Your task to perform on an android device: Go to internet settings Image 0: 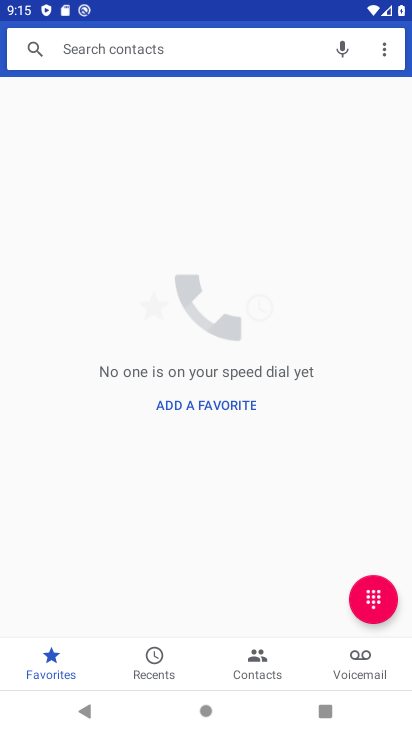
Step 0: press back button
Your task to perform on an android device: Go to internet settings Image 1: 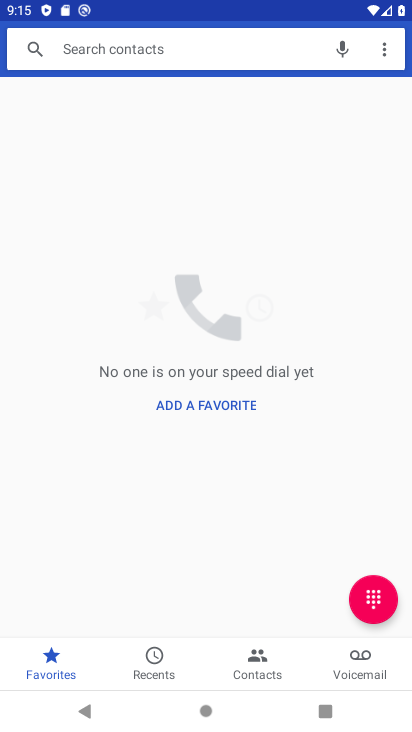
Step 1: press back button
Your task to perform on an android device: Go to internet settings Image 2: 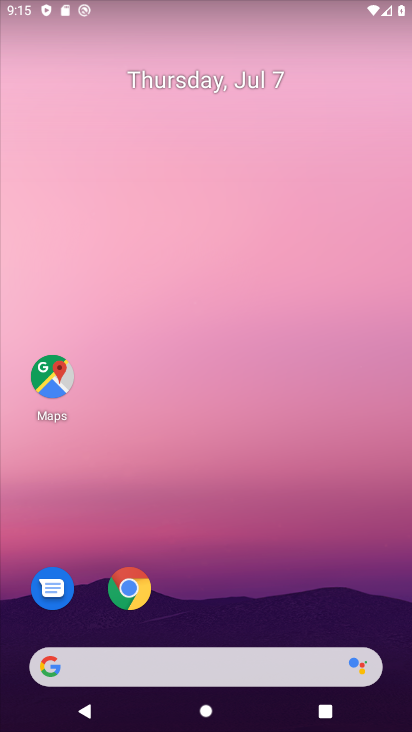
Step 2: click (100, 134)
Your task to perform on an android device: Go to internet settings Image 3: 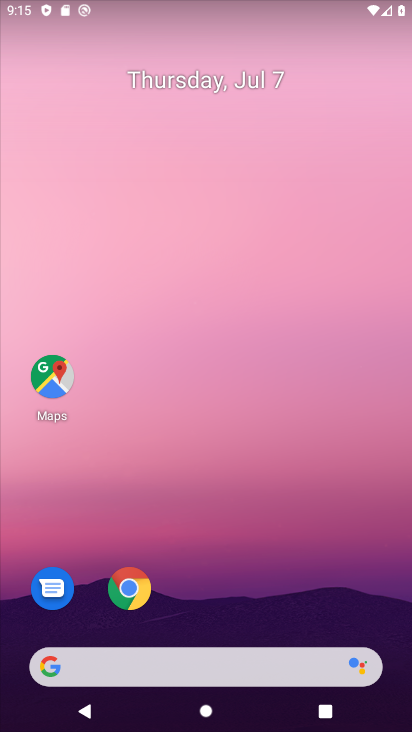
Step 3: drag from (262, 587) to (259, 8)
Your task to perform on an android device: Go to internet settings Image 4: 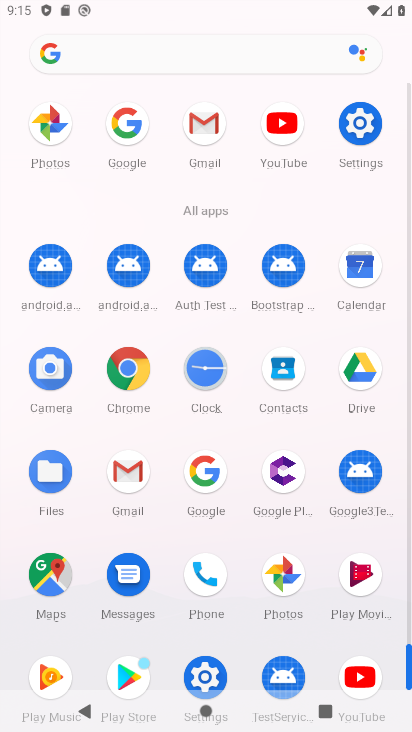
Step 4: click (348, 124)
Your task to perform on an android device: Go to internet settings Image 5: 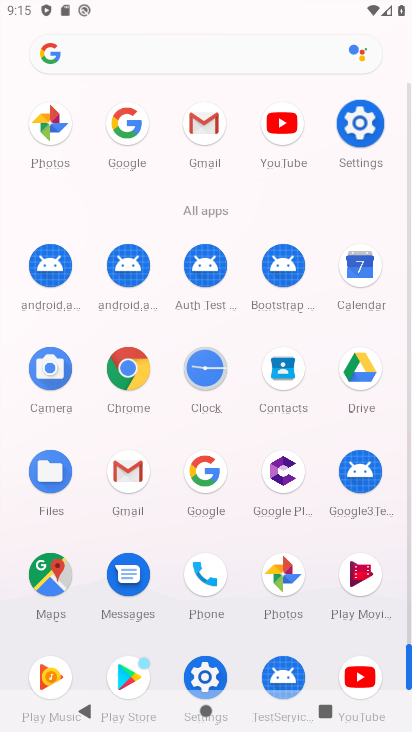
Step 5: click (349, 125)
Your task to perform on an android device: Go to internet settings Image 6: 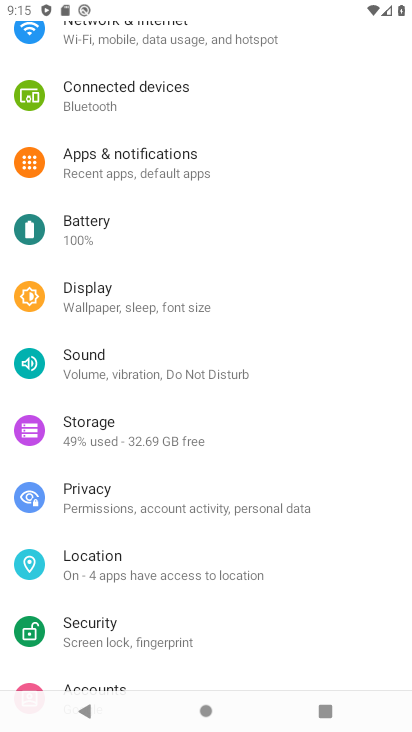
Step 6: drag from (102, 533) to (70, 156)
Your task to perform on an android device: Go to internet settings Image 7: 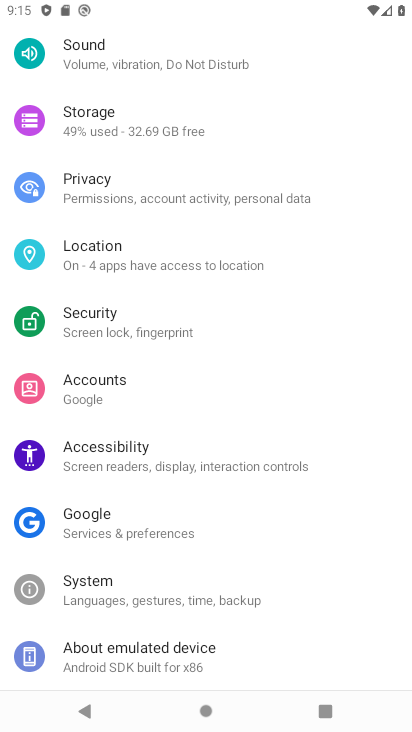
Step 7: drag from (101, 514) to (101, 287)
Your task to perform on an android device: Go to internet settings Image 8: 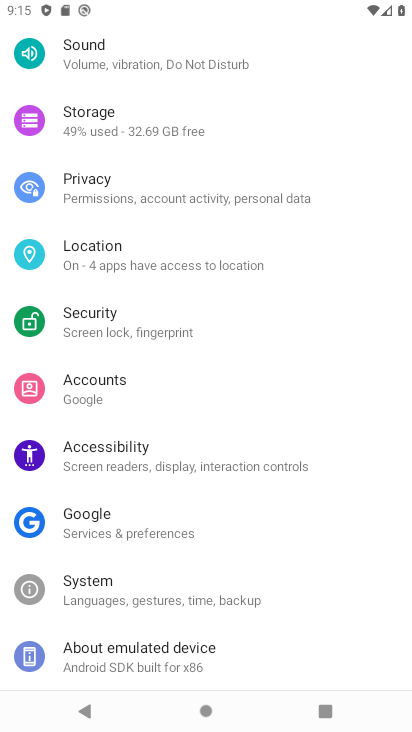
Step 8: drag from (103, 57) to (103, 460)
Your task to perform on an android device: Go to internet settings Image 9: 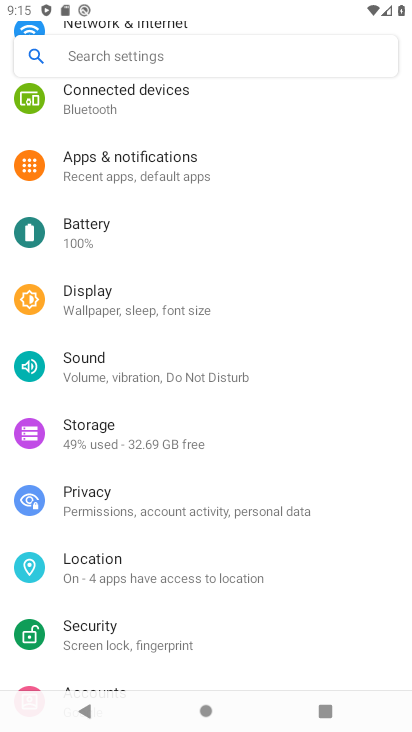
Step 9: drag from (48, 229) to (55, 603)
Your task to perform on an android device: Go to internet settings Image 10: 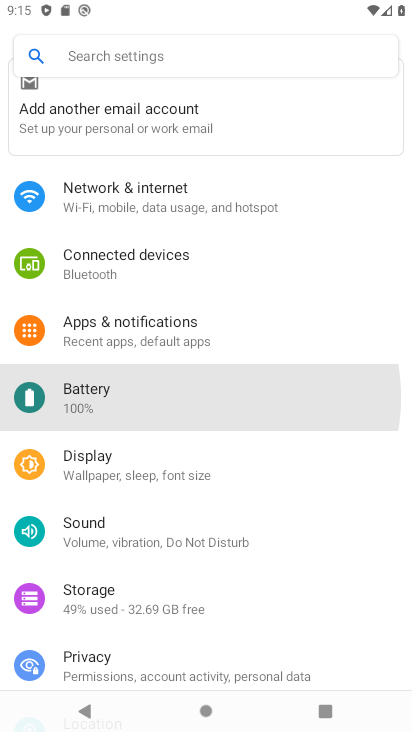
Step 10: drag from (125, 399) to (150, 559)
Your task to perform on an android device: Go to internet settings Image 11: 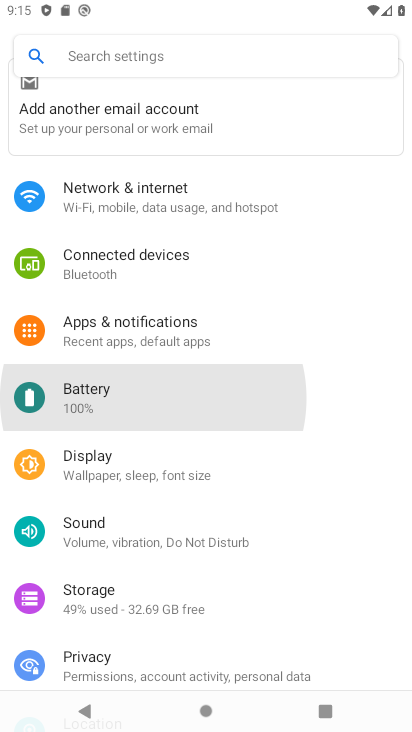
Step 11: drag from (116, 208) to (155, 446)
Your task to perform on an android device: Go to internet settings Image 12: 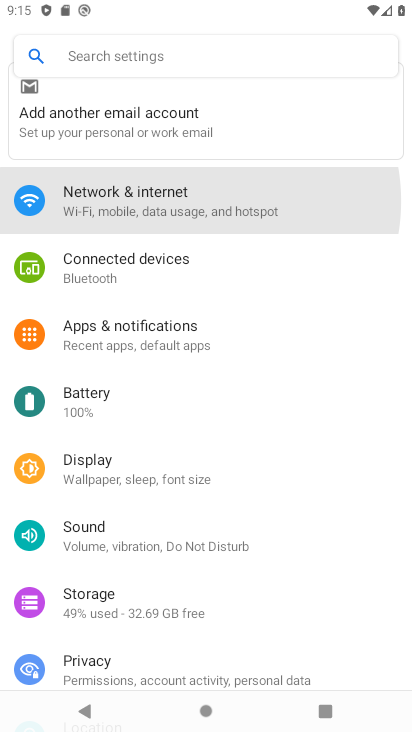
Step 12: drag from (102, 111) to (133, 442)
Your task to perform on an android device: Go to internet settings Image 13: 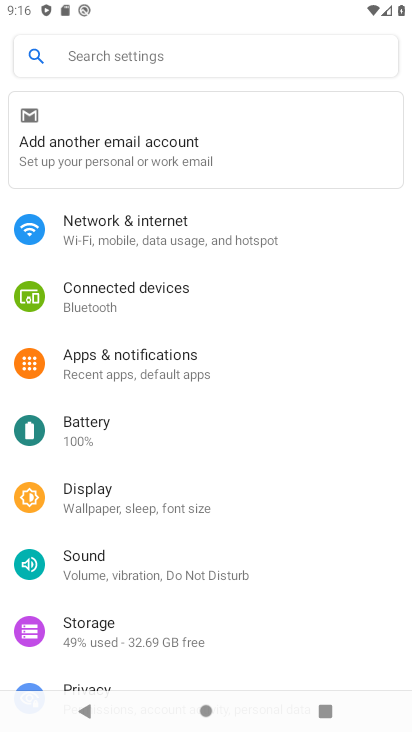
Step 13: click (161, 223)
Your task to perform on an android device: Go to internet settings Image 14: 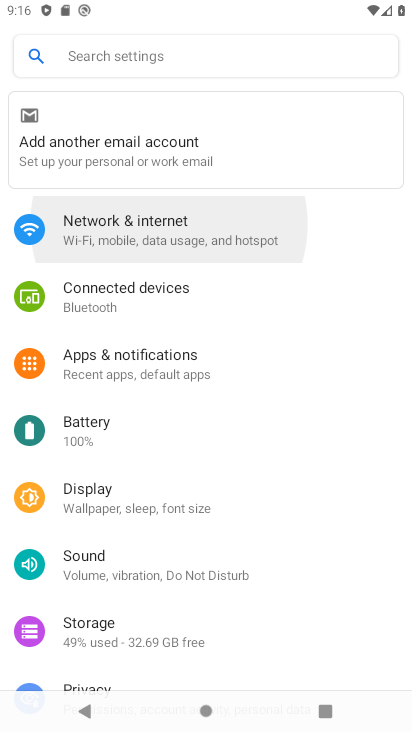
Step 14: click (162, 223)
Your task to perform on an android device: Go to internet settings Image 15: 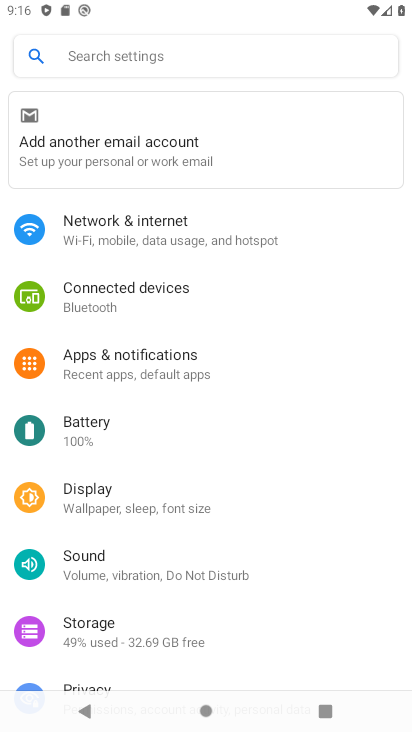
Step 15: click (162, 223)
Your task to perform on an android device: Go to internet settings Image 16: 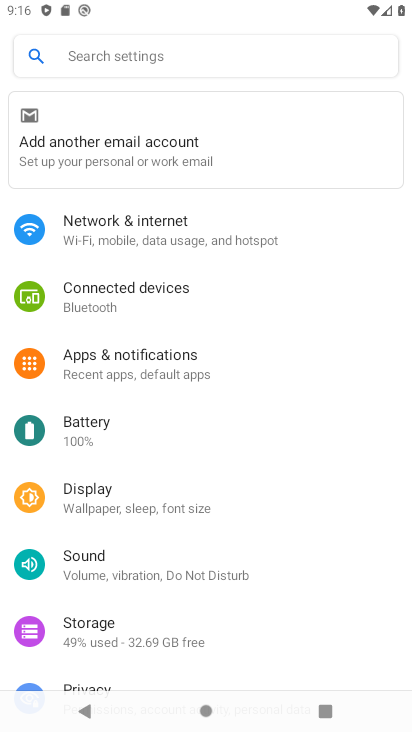
Step 16: click (163, 223)
Your task to perform on an android device: Go to internet settings Image 17: 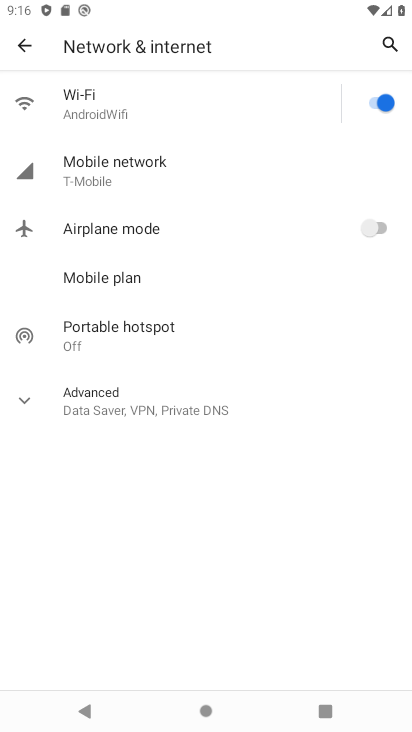
Step 17: task complete